Your task to perform on an android device: open a new tab in the chrome app Image 0: 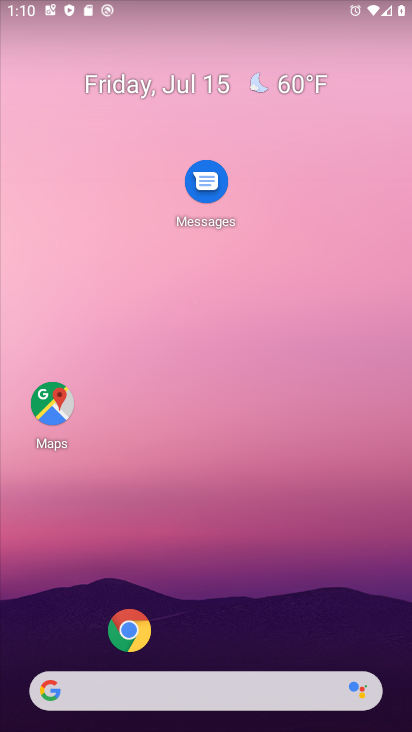
Step 0: click (132, 648)
Your task to perform on an android device: open a new tab in the chrome app Image 1: 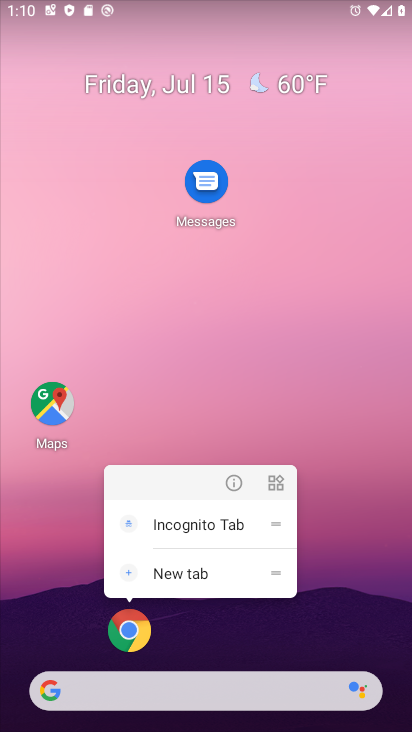
Step 1: click (126, 626)
Your task to perform on an android device: open a new tab in the chrome app Image 2: 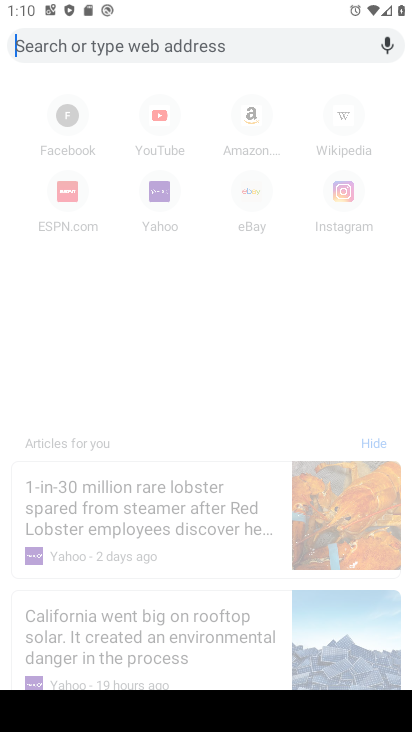
Step 2: click (58, 43)
Your task to perform on an android device: open a new tab in the chrome app Image 3: 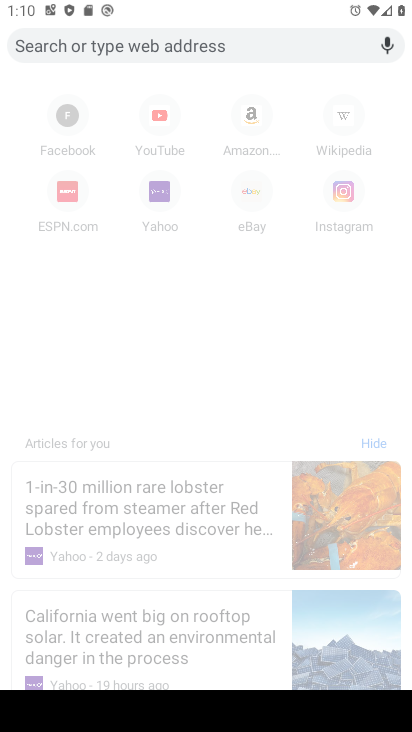
Step 3: click (139, 314)
Your task to perform on an android device: open a new tab in the chrome app Image 4: 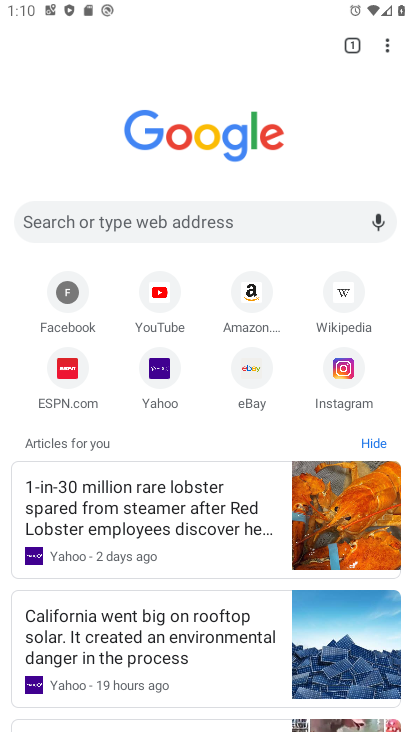
Step 4: click (394, 41)
Your task to perform on an android device: open a new tab in the chrome app Image 5: 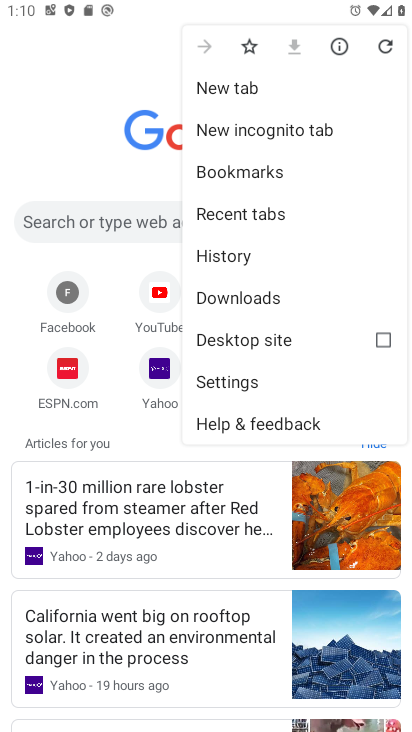
Step 5: click (251, 90)
Your task to perform on an android device: open a new tab in the chrome app Image 6: 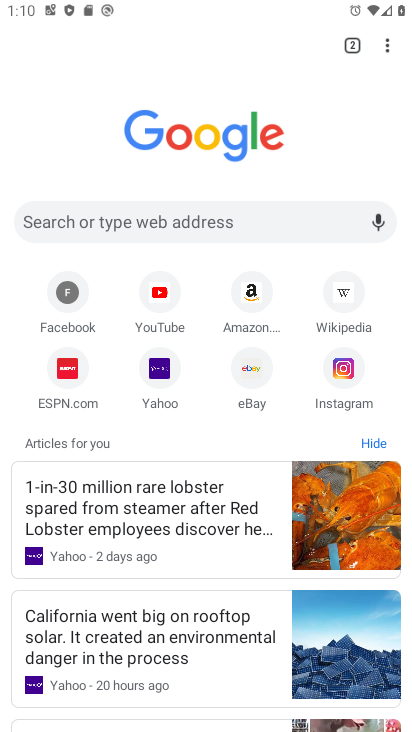
Step 6: task complete